Your task to perform on an android device: open sync settings in chrome Image 0: 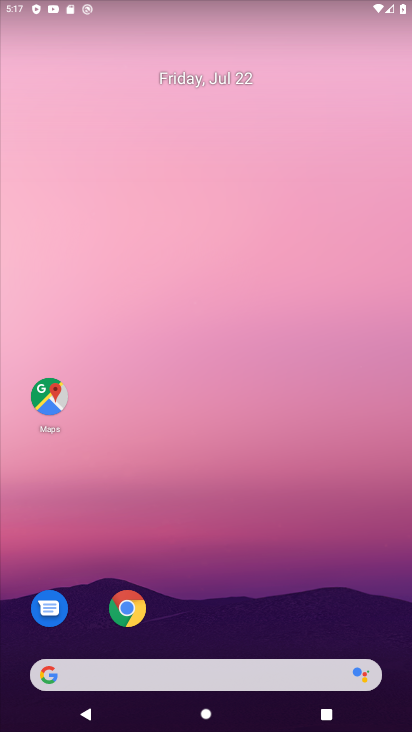
Step 0: click (122, 610)
Your task to perform on an android device: open sync settings in chrome Image 1: 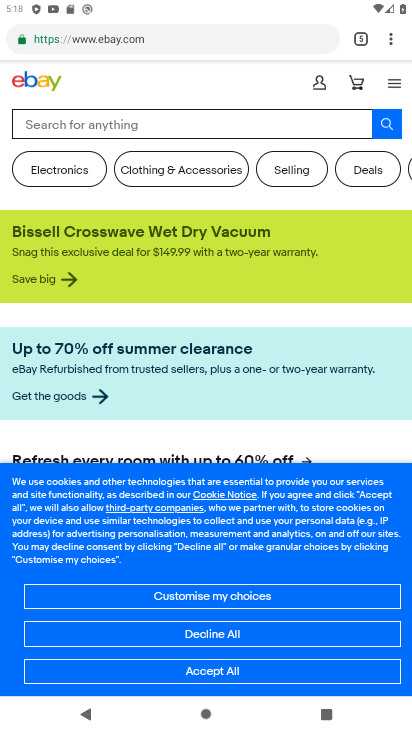
Step 1: click (402, 42)
Your task to perform on an android device: open sync settings in chrome Image 2: 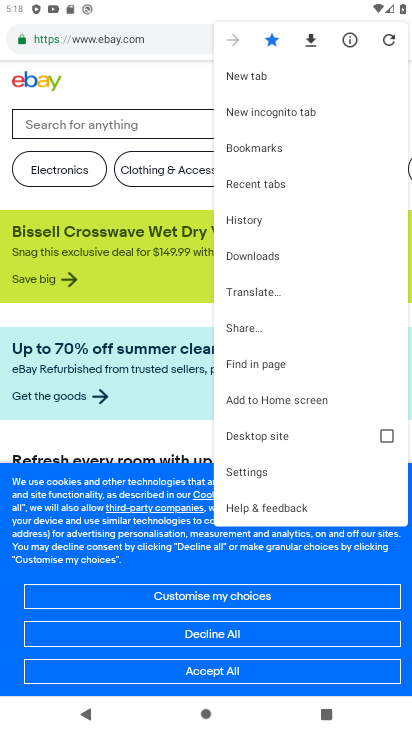
Step 2: click (245, 465)
Your task to perform on an android device: open sync settings in chrome Image 3: 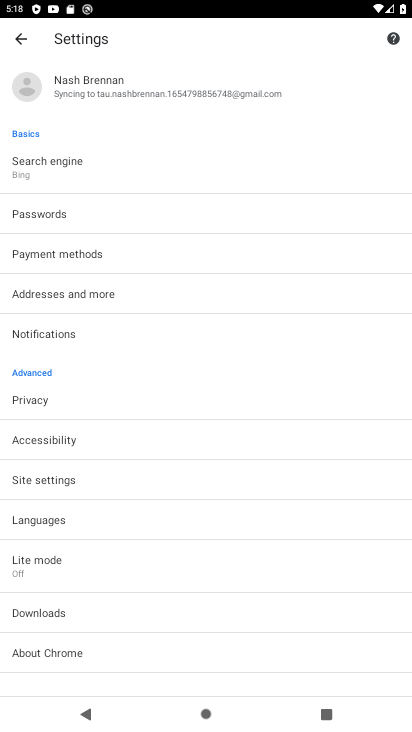
Step 3: click (205, 86)
Your task to perform on an android device: open sync settings in chrome Image 4: 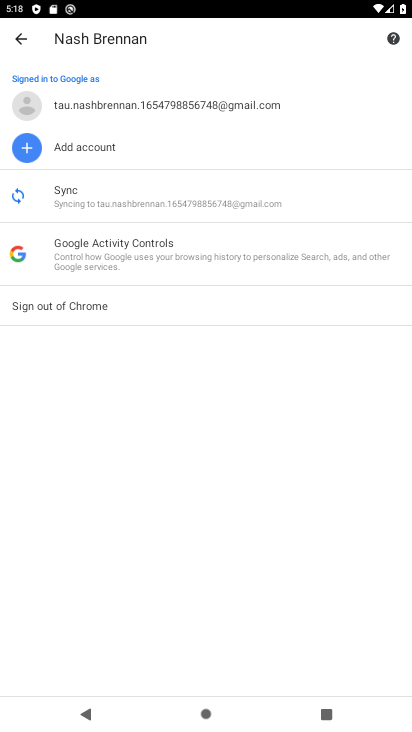
Step 4: click (41, 211)
Your task to perform on an android device: open sync settings in chrome Image 5: 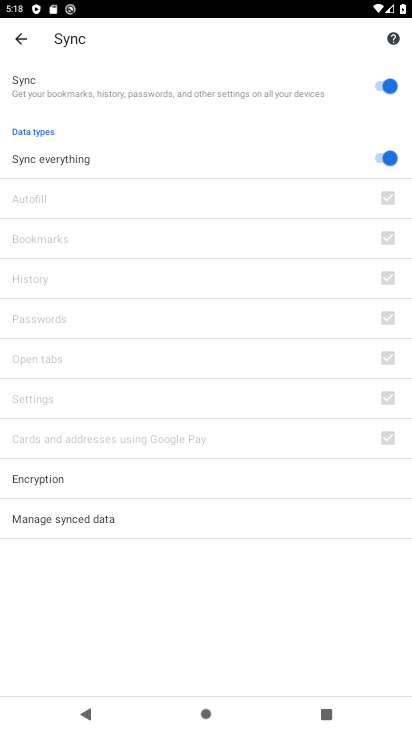
Step 5: task complete